Your task to perform on an android device: change your default location settings in chrome Image 0: 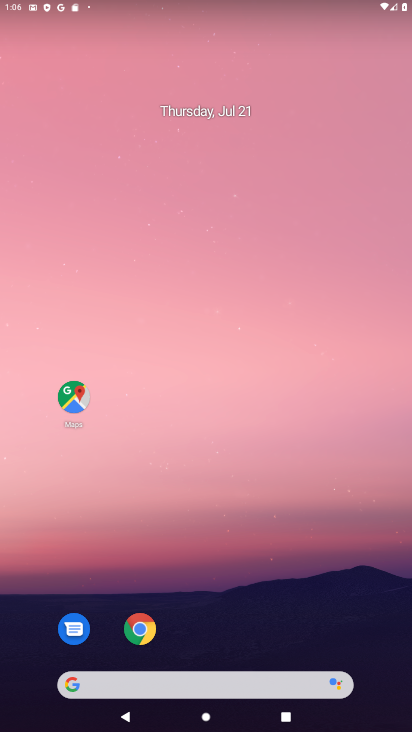
Step 0: drag from (202, 637) to (239, 133)
Your task to perform on an android device: change your default location settings in chrome Image 1: 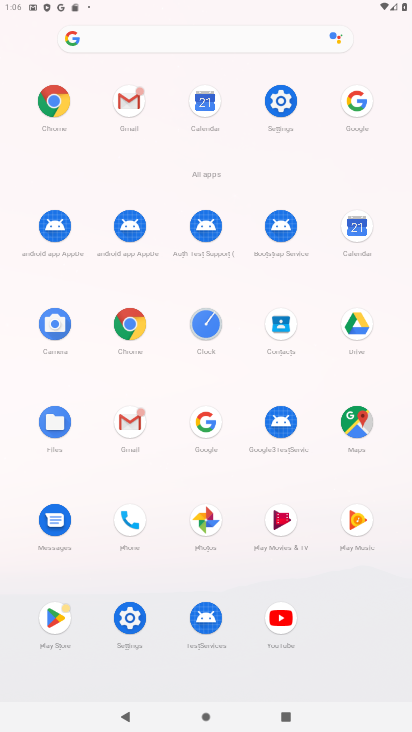
Step 1: click (130, 325)
Your task to perform on an android device: change your default location settings in chrome Image 2: 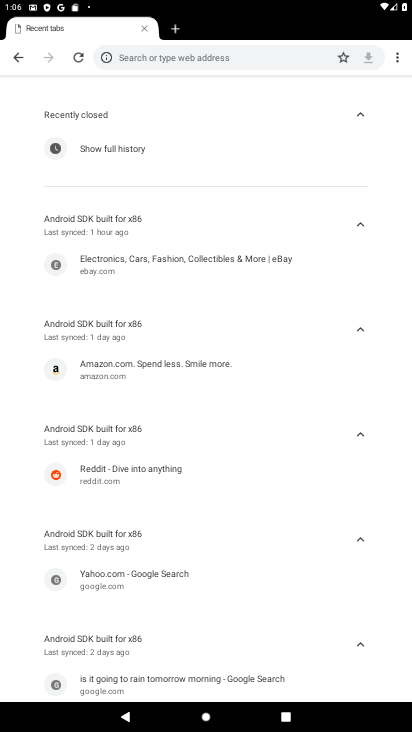
Step 2: click (393, 64)
Your task to perform on an android device: change your default location settings in chrome Image 3: 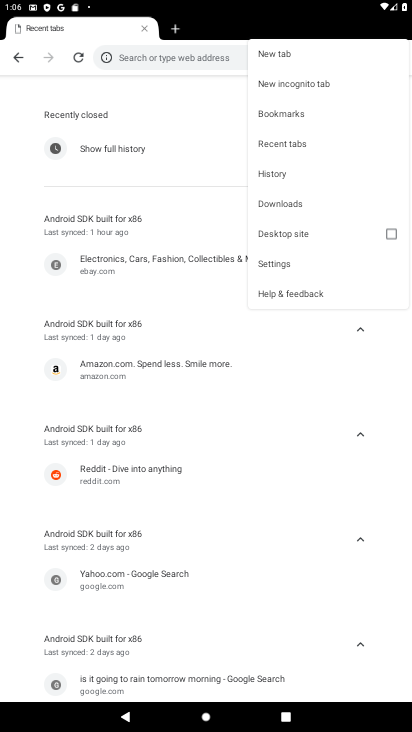
Step 3: click (293, 265)
Your task to perform on an android device: change your default location settings in chrome Image 4: 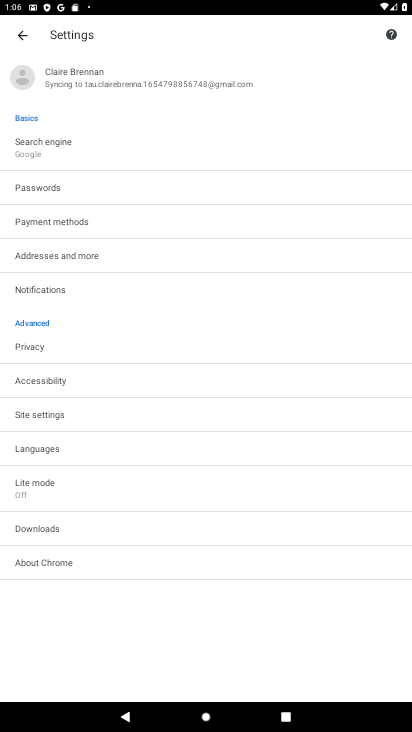
Step 4: click (105, 155)
Your task to perform on an android device: change your default location settings in chrome Image 5: 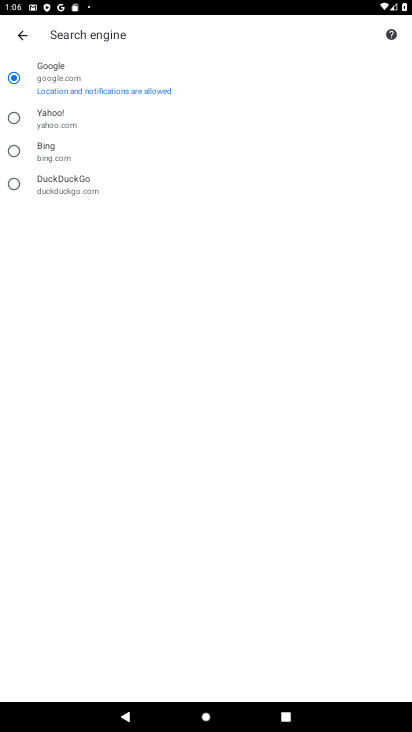
Step 5: click (11, 118)
Your task to perform on an android device: change your default location settings in chrome Image 6: 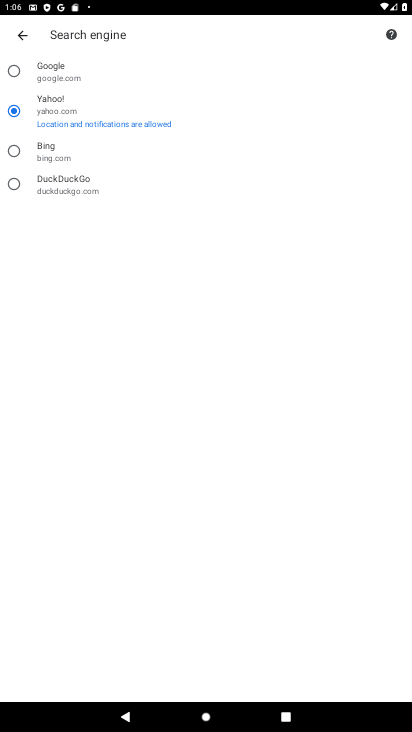
Step 6: task complete